Your task to perform on an android device: snooze an email in the gmail app Image 0: 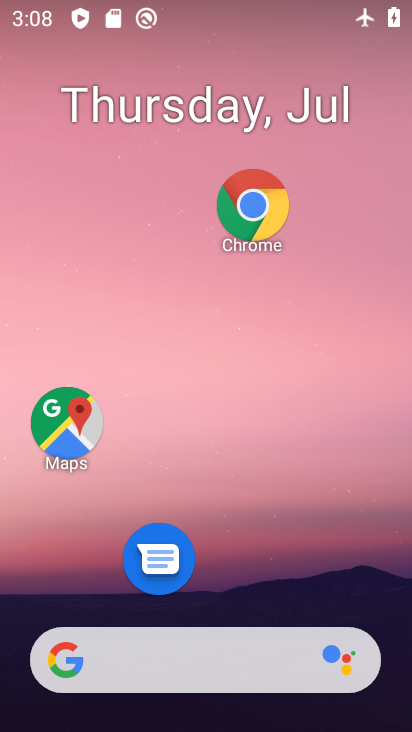
Step 0: drag from (367, 564) to (409, 53)
Your task to perform on an android device: snooze an email in the gmail app Image 1: 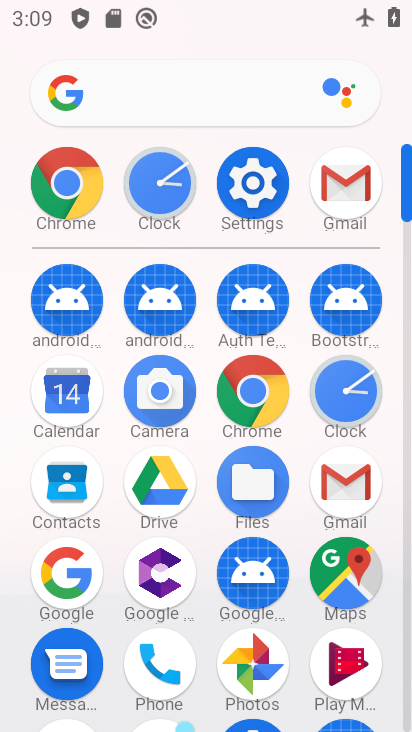
Step 1: click (356, 182)
Your task to perform on an android device: snooze an email in the gmail app Image 2: 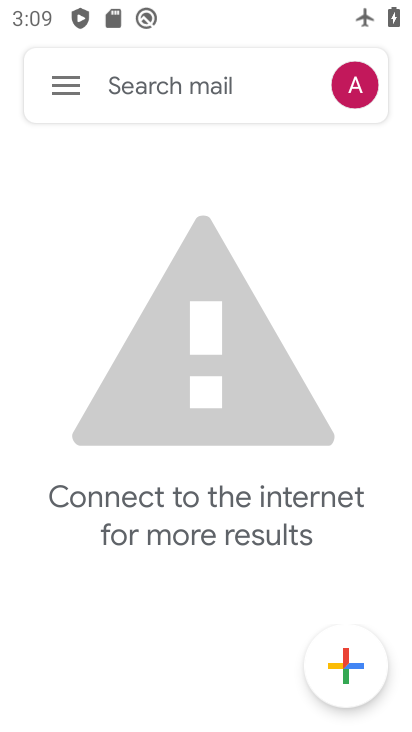
Step 2: click (62, 92)
Your task to perform on an android device: snooze an email in the gmail app Image 3: 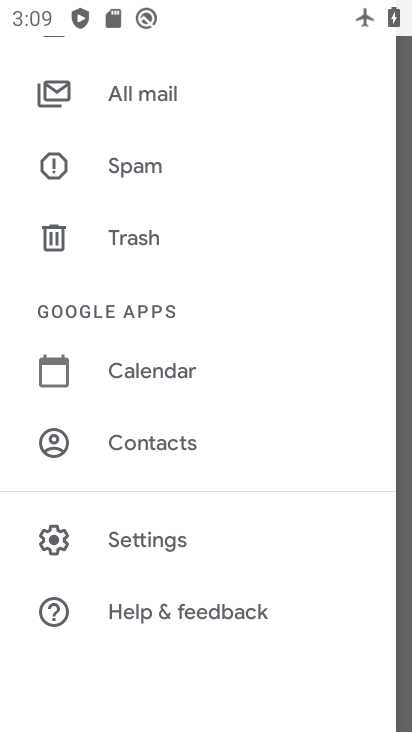
Step 3: click (153, 95)
Your task to perform on an android device: snooze an email in the gmail app Image 4: 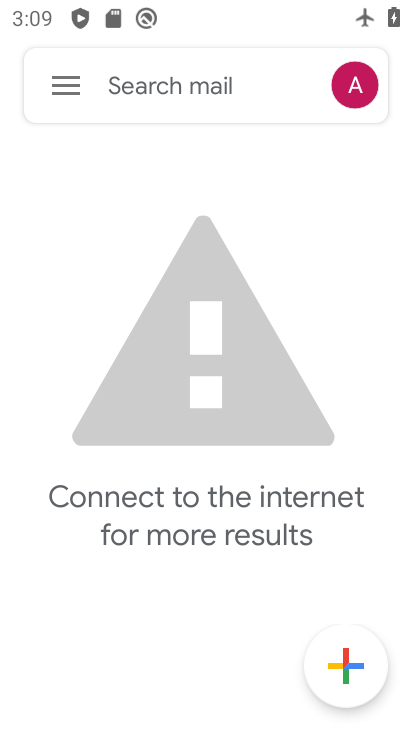
Step 4: task complete